Your task to perform on an android device: What's on my calendar tomorrow? Image 0: 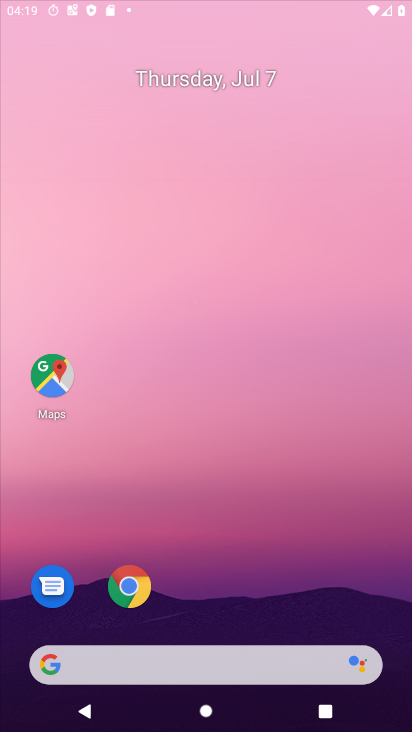
Step 0: press home button
Your task to perform on an android device: What's on my calendar tomorrow? Image 1: 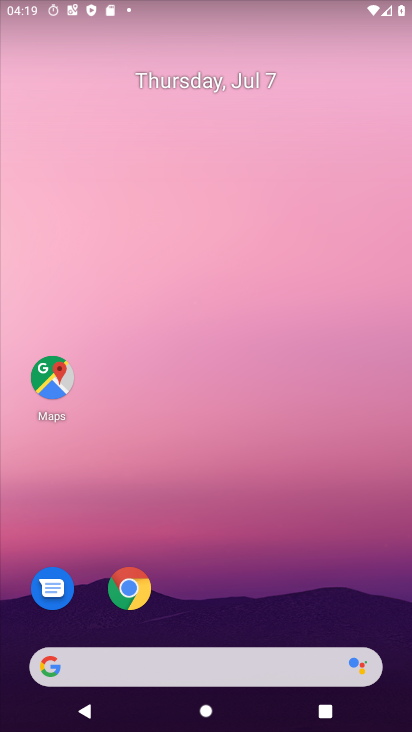
Step 1: drag from (204, 633) to (284, 10)
Your task to perform on an android device: What's on my calendar tomorrow? Image 2: 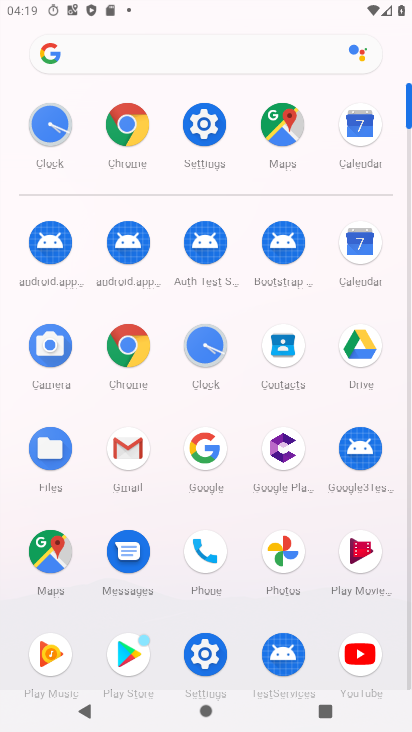
Step 2: click (387, 229)
Your task to perform on an android device: What's on my calendar tomorrow? Image 3: 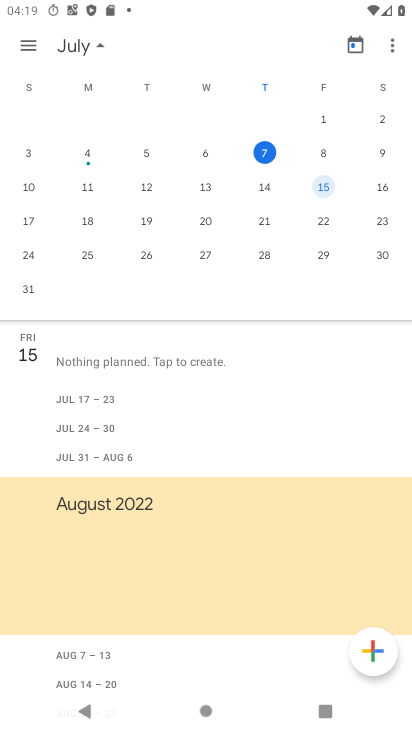
Step 3: click (329, 153)
Your task to perform on an android device: What's on my calendar tomorrow? Image 4: 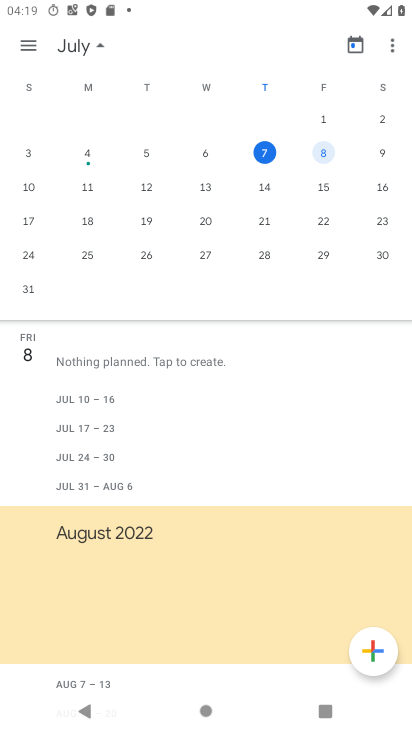
Step 4: task complete